Your task to perform on an android device: Open the phone app and click the voicemail tab. Image 0: 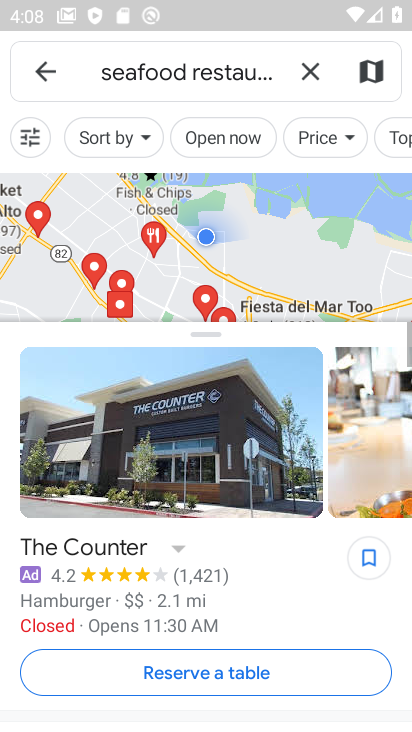
Step 0: drag from (253, 327) to (268, 170)
Your task to perform on an android device: Open the phone app and click the voicemail tab. Image 1: 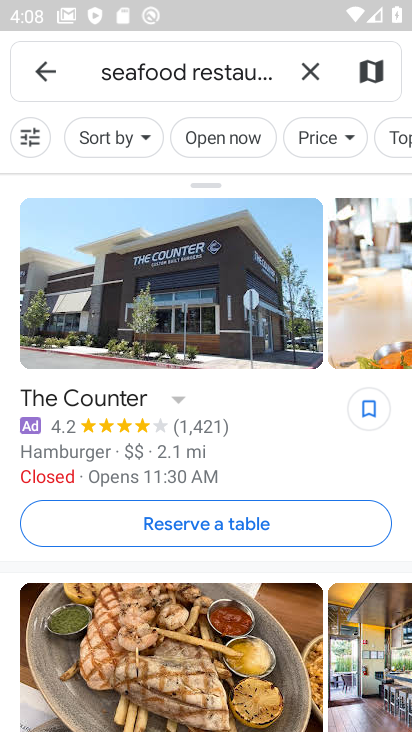
Step 1: press home button
Your task to perform on an android device: Open the phone app and click the voicemail tab. Image 2: 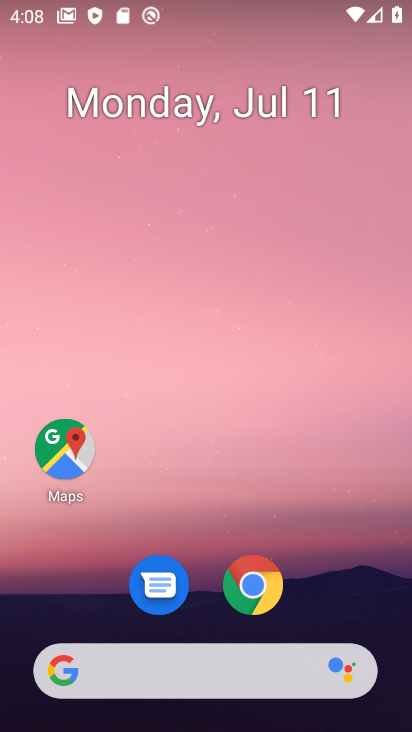
Step 2: drag from (210, 533) to (262, 1)
Your task to perform on an android device: Open the phone app and click the voicemail tab. Image 3: 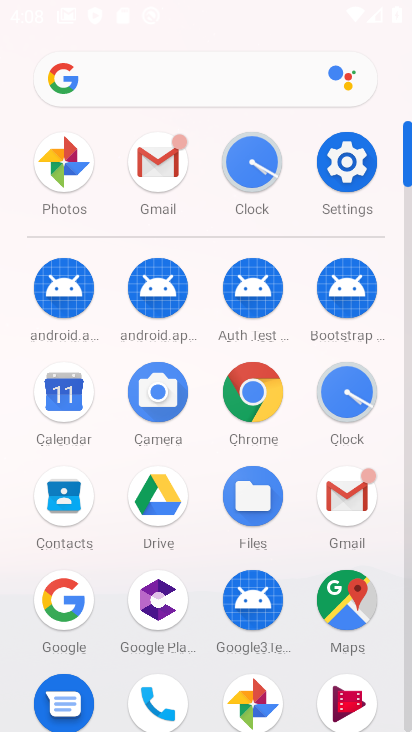
Step 3: drag from (210, 586) to (197, 375)
Your task to perform on an android device: Open the phone app and click the voicemail tab. Image 4: 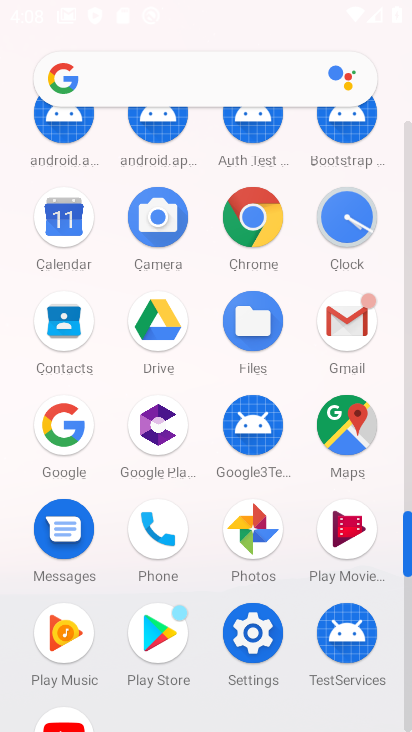
Step 4: click (152, 519)
Your task to perform on an android device: Open the phone app and click the voicemail tab. Image 5: 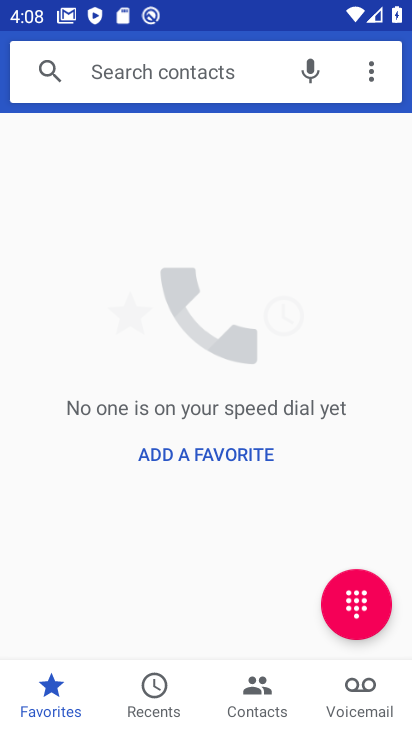
Step 5: click (367, 694)
Your task to perform on an android device: Open the phone app and click the voicemail tab. Image 6: 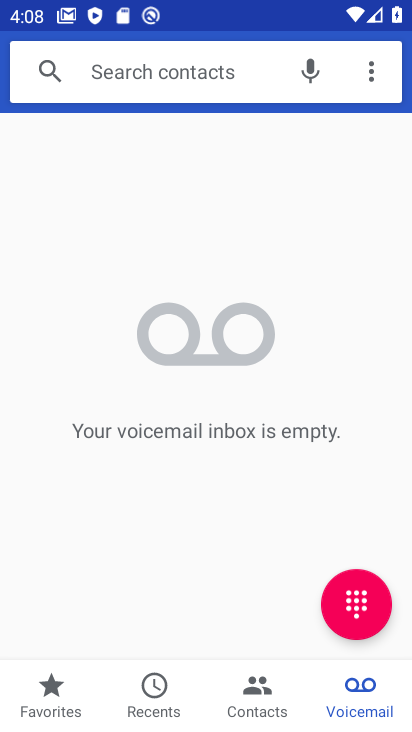
Step 6: task complete